Your task to perform on an android device: toggle javascript in the chrome app Image 0: 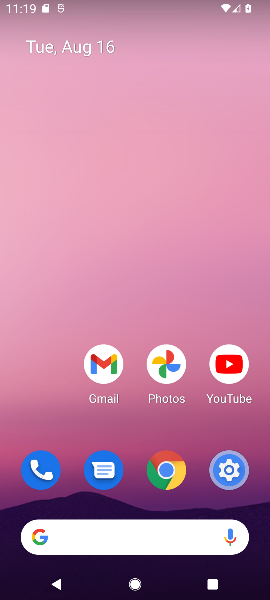
Step 0: click (169, 467)
Your task to perform on an android device: toggle javascript in the chrome app Image 1: 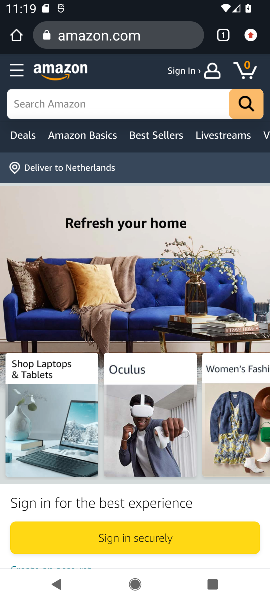
Step 1: click (169, 468)
Your task to perform on an android device: toggle javascript in the chrome app Image 2: 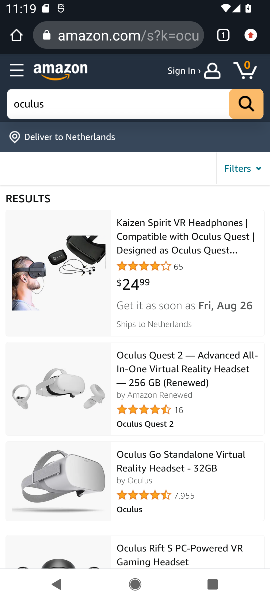
Step 2: click (250, 34)
Your task to perform on an android device: toggle javascript in the chrome app Image 3: 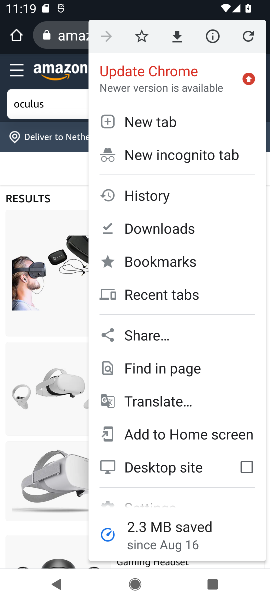
Step 3: drag from (198, 336) to (166, 111)
Your task to perform on an android device: toggle javascript in the chrome app Image 4: 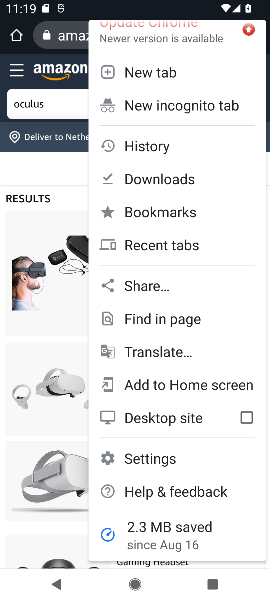
Step 4: click (158, 456)
Your task to perform on an android device: toggle javascript in the chrome app Image 5: 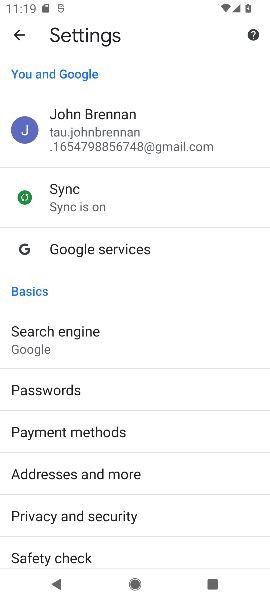
Step 5: drag from (166, 485) to (187, 76)
Your task to perform on an android device: toggle javascript in the chrome app Image 6: 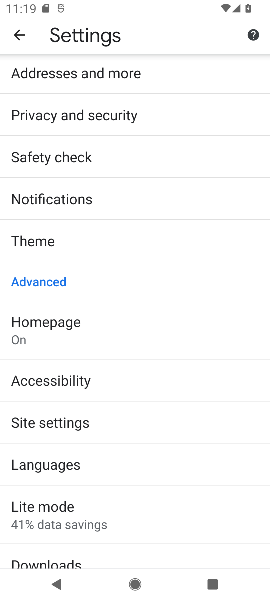
Step 6: click (87, 419)
Your task to perform on an android device: toggle javascript in the chrome app Image 7: 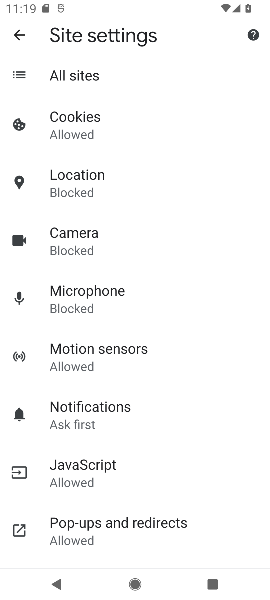
Step 7: click (104, 466)
Your task to perform on an android device: toggle javascript in the chrome app Image 8: 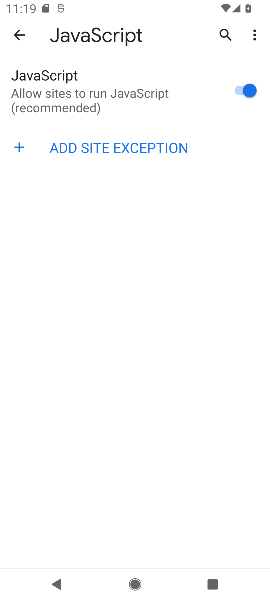
Step 8: click (242, 87)
Your task to perform on an android device: toggle javascript in the chrome app Image 9: 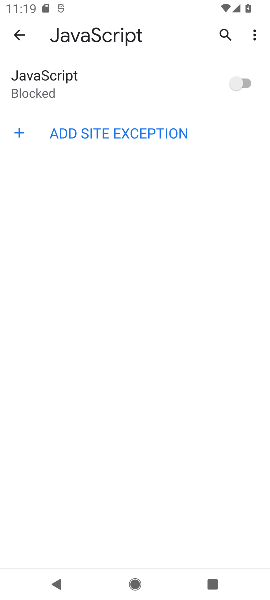
Step 9: task complete